Your task to perform on an android device: Do I have any events today? Image 0: 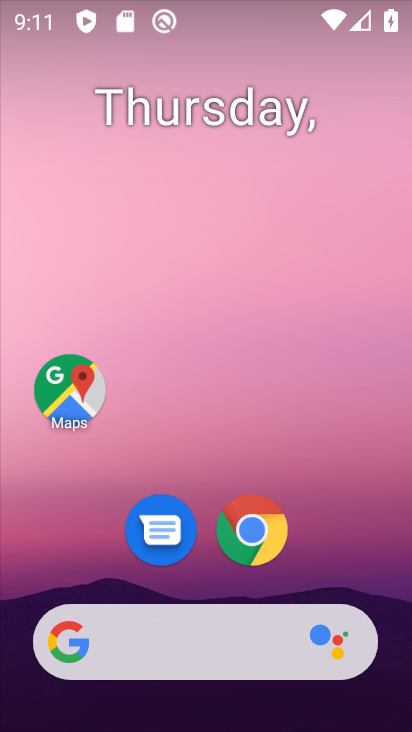
Step 0: drag from (326, 560) to (305, 9)
Your task to perform on an android device: Do I have any events today? Image 1: 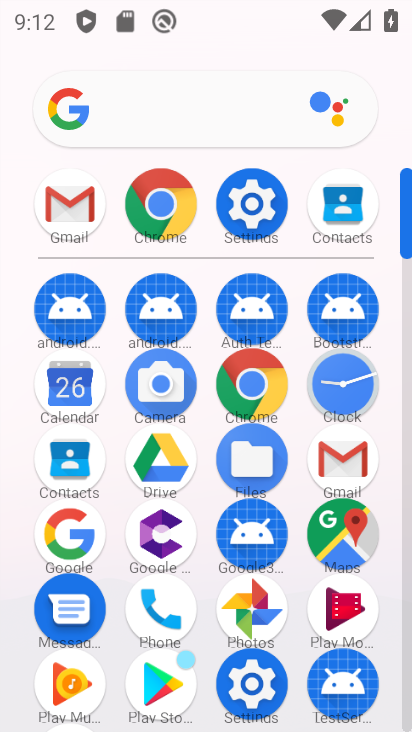
Step 1: drag from (17, 569) to (33, 258)
Your task to perform on an android device: Do I have any events today? Image 2: 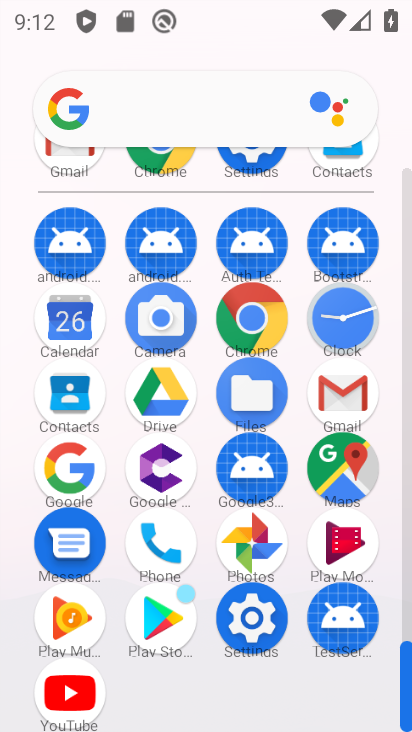
Step 2: drag from (12, 258) to (9, 446)
Your task to perform on an android device: Do I have any events today? Image 3: 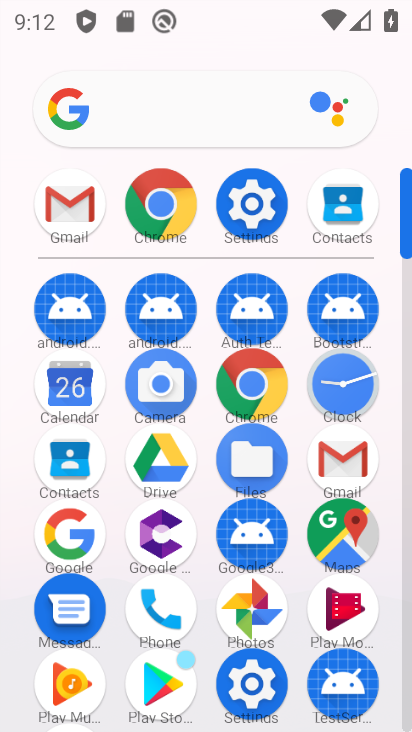
Step 3: click (66, 379)
Your task to perform on an android device: Do I have any events today? Image 4: 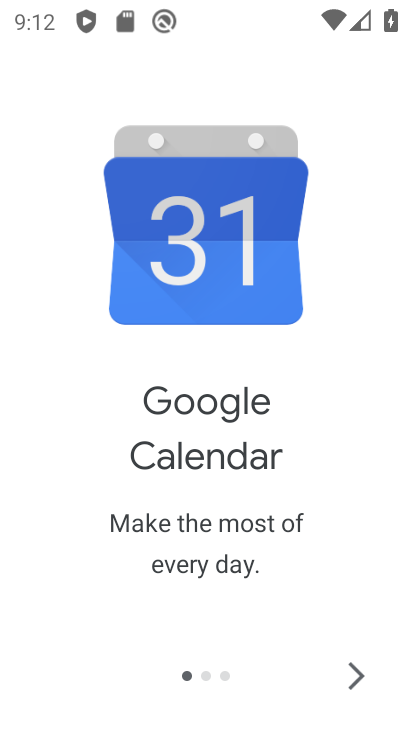
Step 4: click (352, 672)
Your task to perform on an android device: Do I have any events today? Image 5: 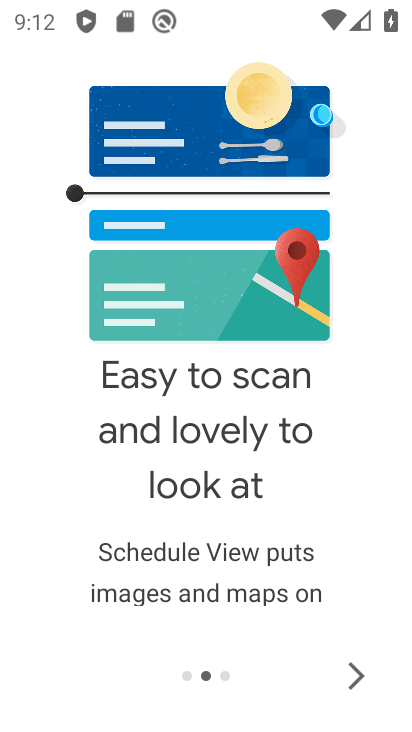
Step 5: click (352, 672)
Your task to perform on an android device: Do I have any events today? Image 6: 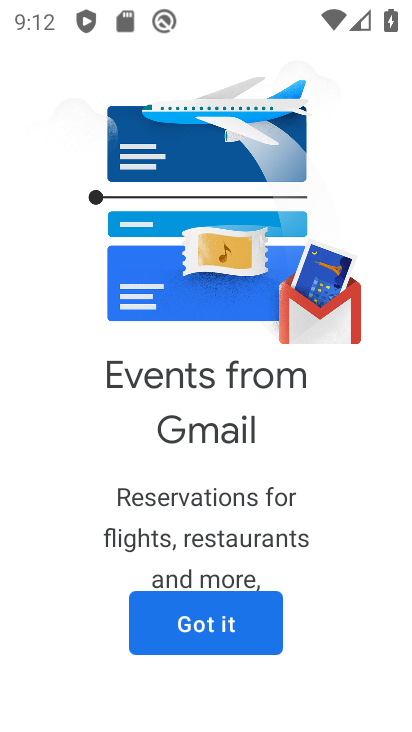
Step 6: click (218, 616)
Your task to perform on an android device: Do I have any events today? Image 7: 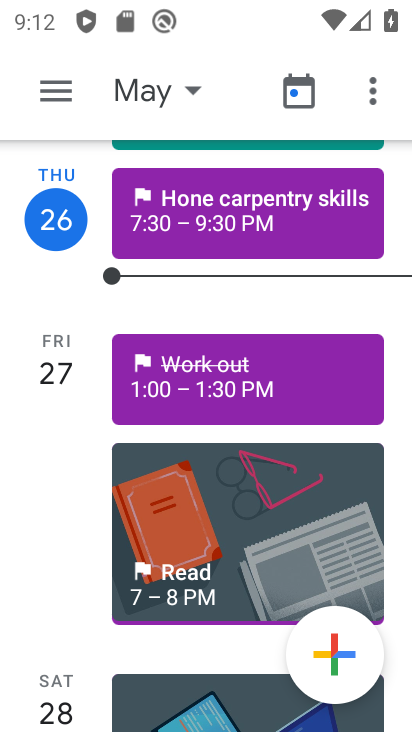
Step 7: click (57, 209)
Your task to perform on an android device: Do I have any events today? Image 8: 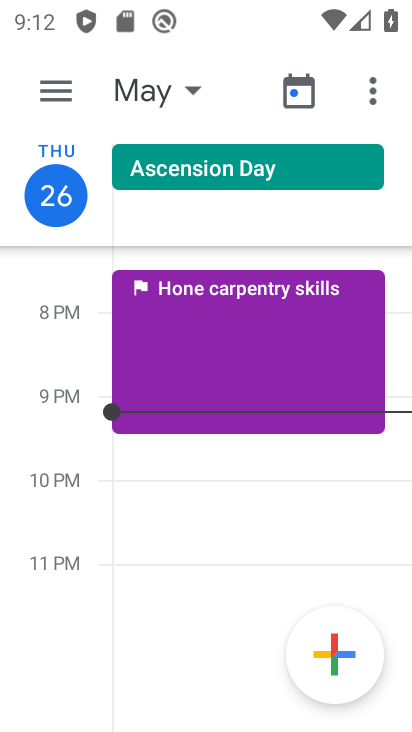
Step 8: task complete